Your task to perform on an android device: open device folders in google photos Image 0: 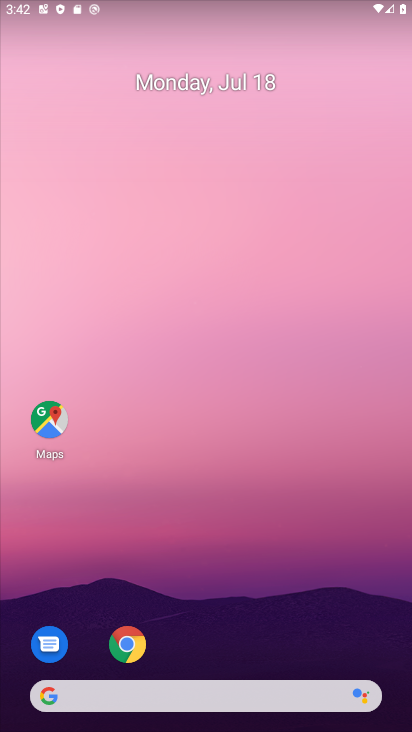
Step 0: drag from (358, 638) to (339, 91)
Your task to perform on an android device: open device folders in google photos Image 1: 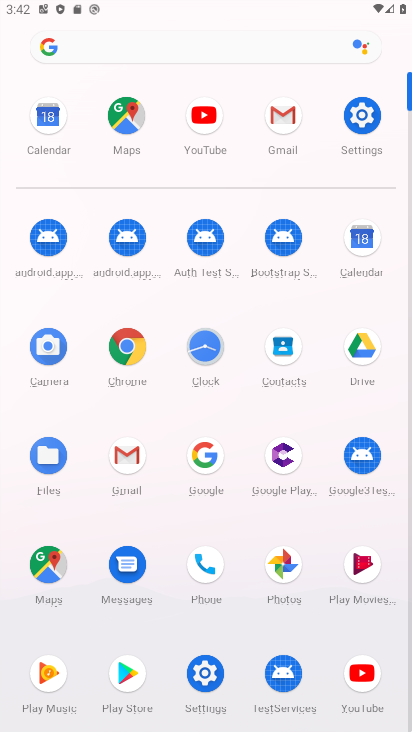
Step 1: click (279, 557)
Your task to perform on an android device: open device folders in google photos Image 2: 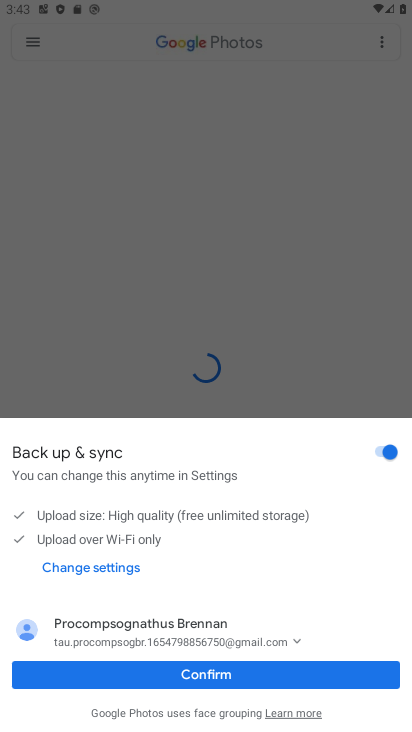
Step 2: click (186, 671)
Your task to perform on an android device: open device folders in google photos Image 3: 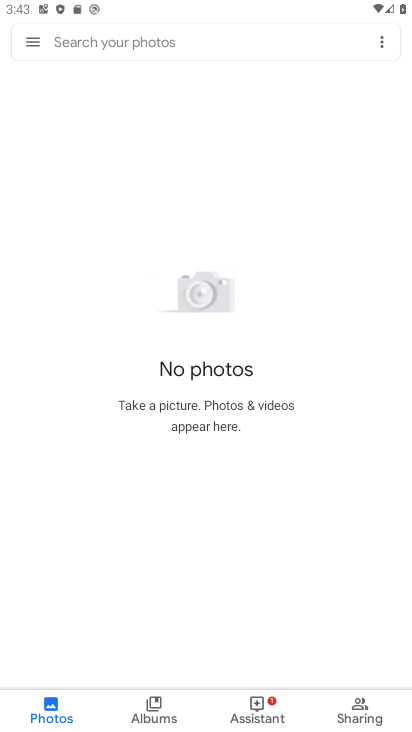
Step 3: click (36, 43)
Your task to perform on an android device: open device folders in google photos Image 4: 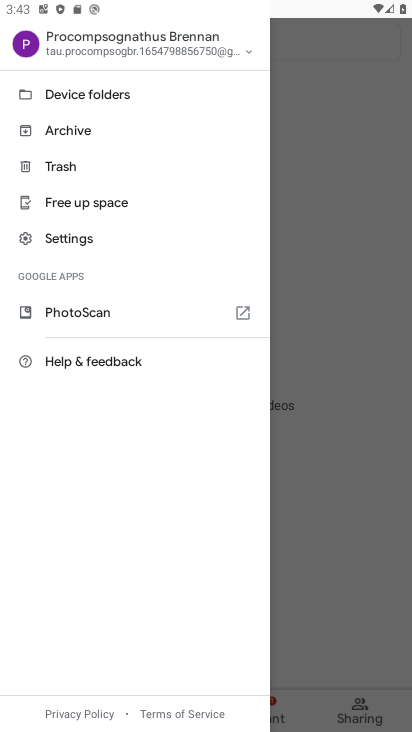
Step 4: click (72, 97)
Your task to perform on an android device: open device folders in google photos Image 5: 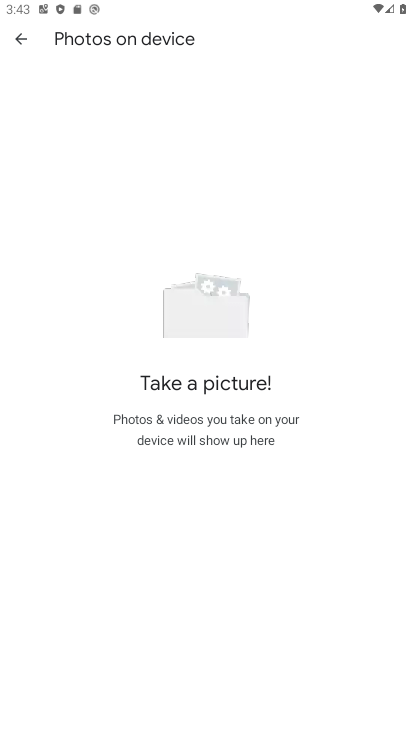
Step 5: task complete